Your task to perform on an android device: Open Amazon Image 0: 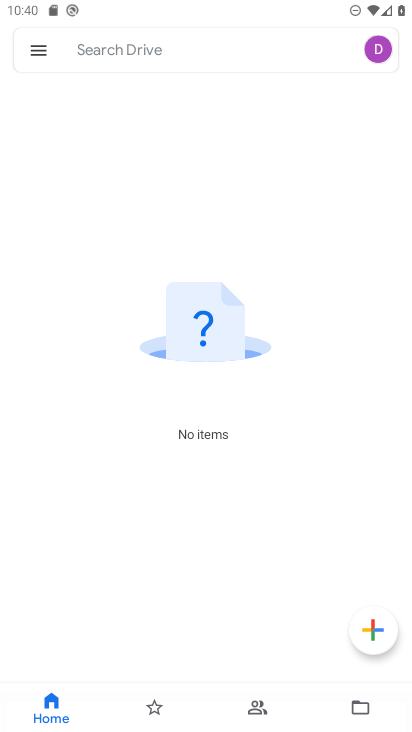
Step 0: press home button
Your task to perform on an android device: Open Amazon Image 1: 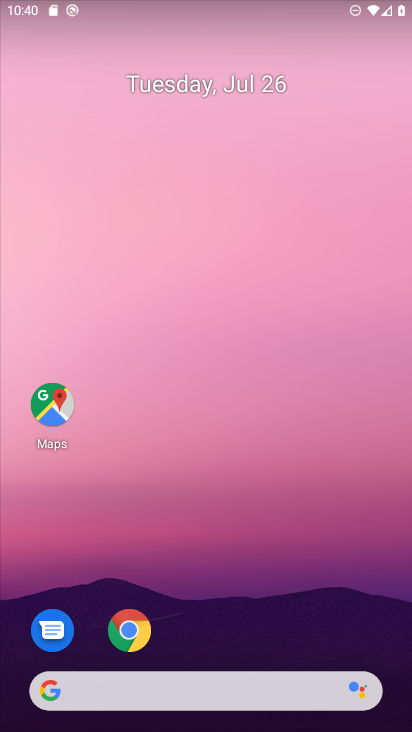
Step 1: click (127, 630)
Your task to perform on an android device: Open Amazon Image 2: 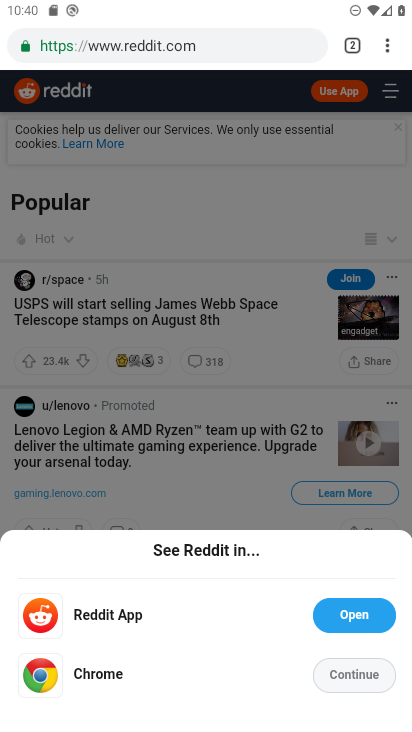
Step 2: click (230, 39)
Your task to perform on an android device: Open Amazon Image 3: 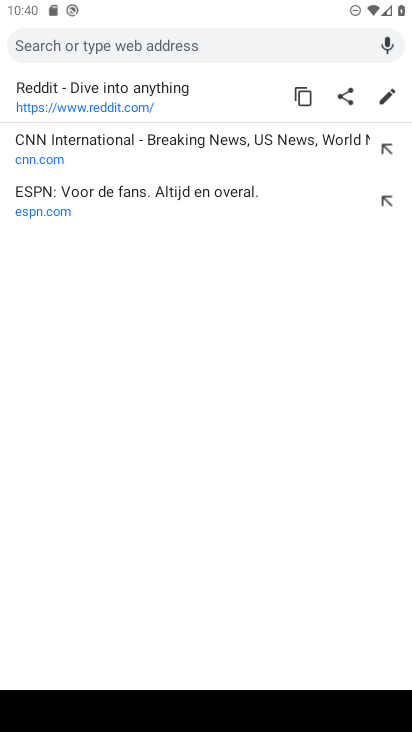
Step 3: type "amazon"
Your task to perform on an android device: Open Amazon Image 4: 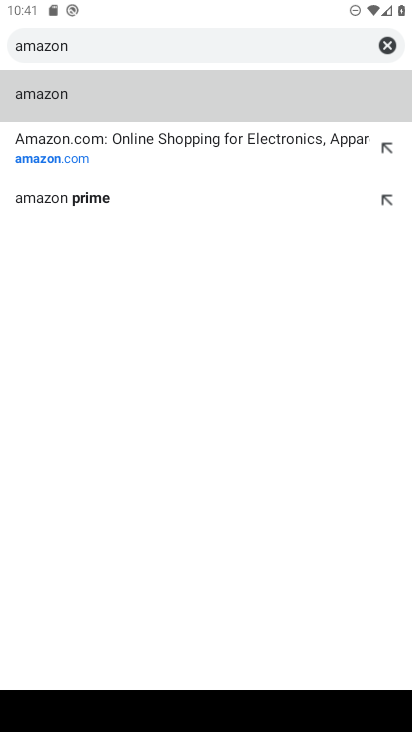
Step 4: click (50, 95)
Your task to perform on an android device: Open Amazon Image 5: 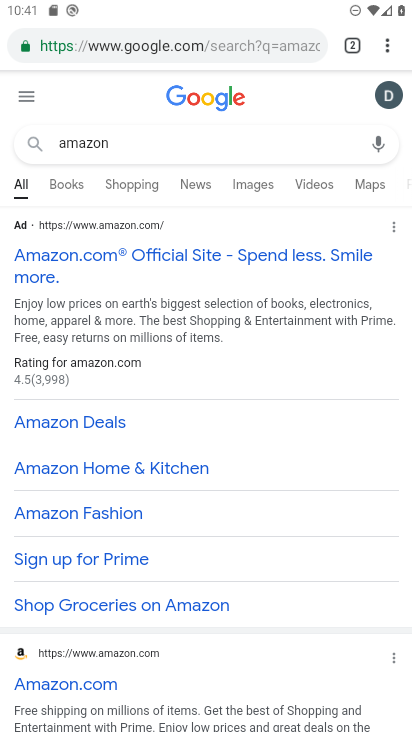
Step 5: click (89, 291)
Your task to perform on an android device: Open Amazon Image 6: 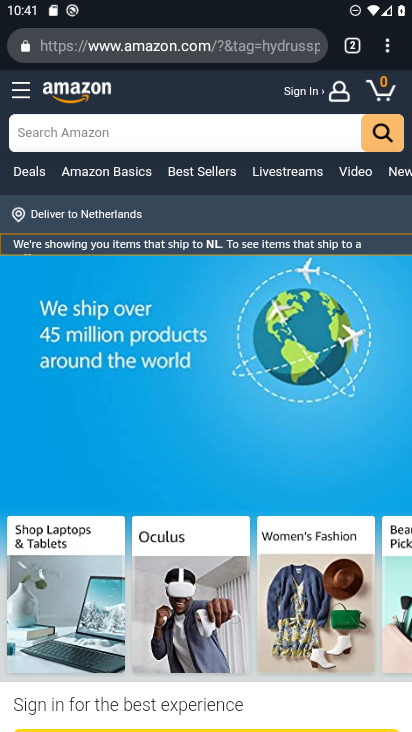
Step 6: task complete